Your task to perform on an android device: change keyboard looks Image 0: 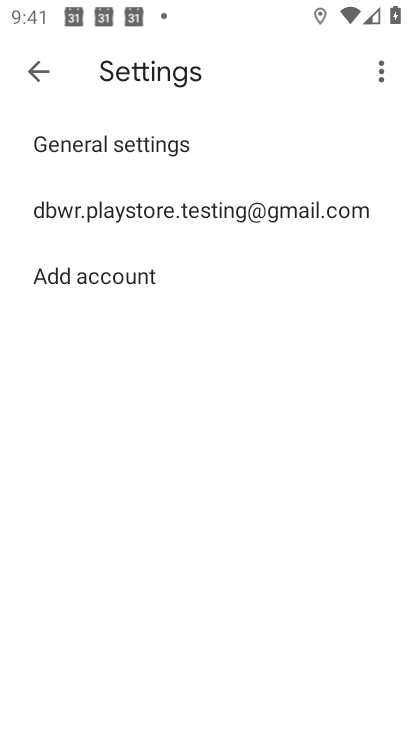
Step 0: press home button
Your task to perform on an android device: change keyboard looks Image 1: 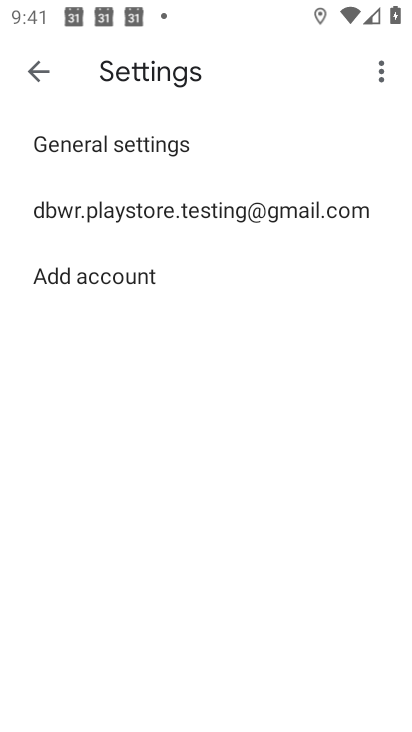
Step 1: press home button
Your task to perform on an android device: change keyboard looks Image 2: 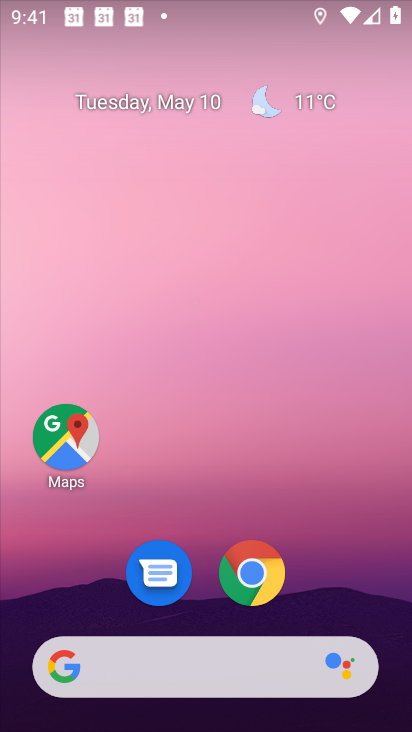
Step 2: drag from (308, 569) to (309, 119)
Your task to perform on an android device: change keyboard looks Image 3: 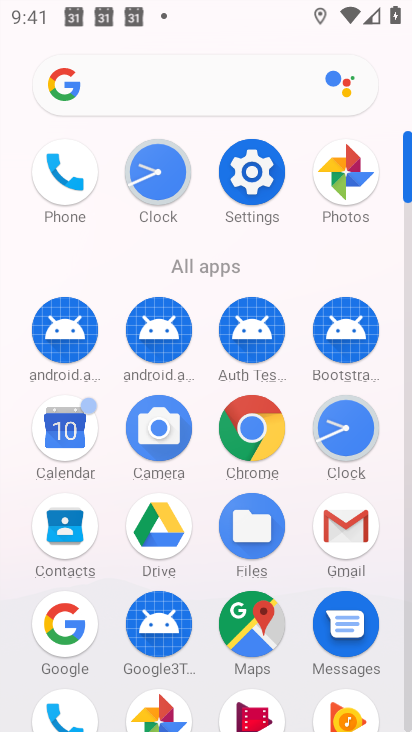
Step 3: click (270, 186)
Your task to perform on an android device: change keyboard looks Image 4: 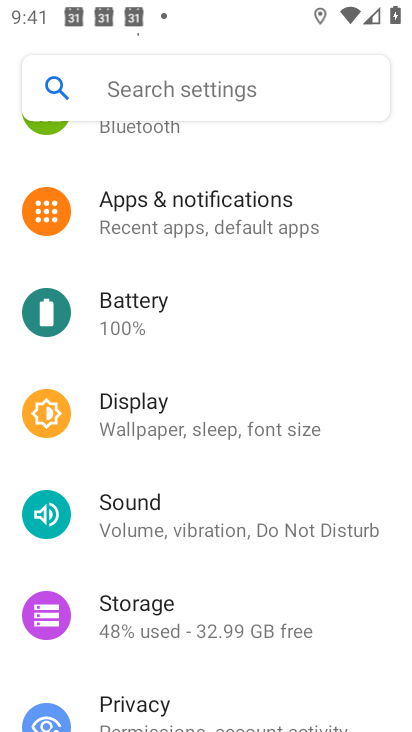
Step 4: drag from (271, 590) to (302, 119)
Your task to perform on an android device: change keyboard looks Image 5: 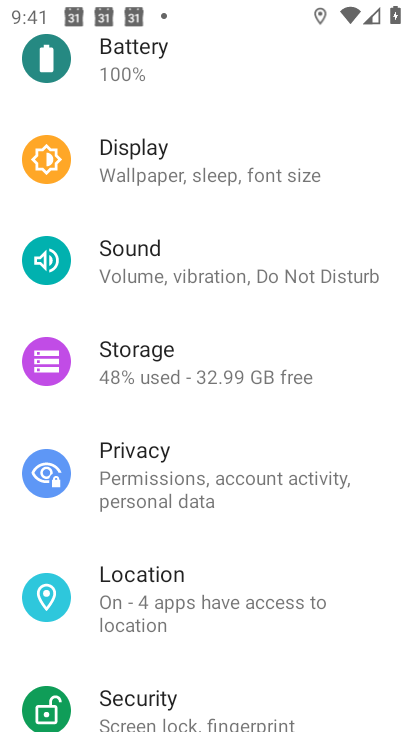
Step 5: drag from (280, 688) to (309, 165)
Your task to perform on an android device: change keyboard looks Image 6: 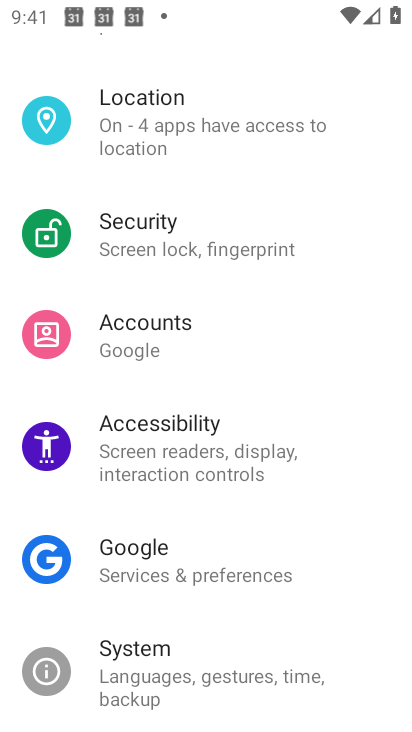
Step 6: click (227, 681)
Your task to perform on an android device: change keyboard looks Image 7: 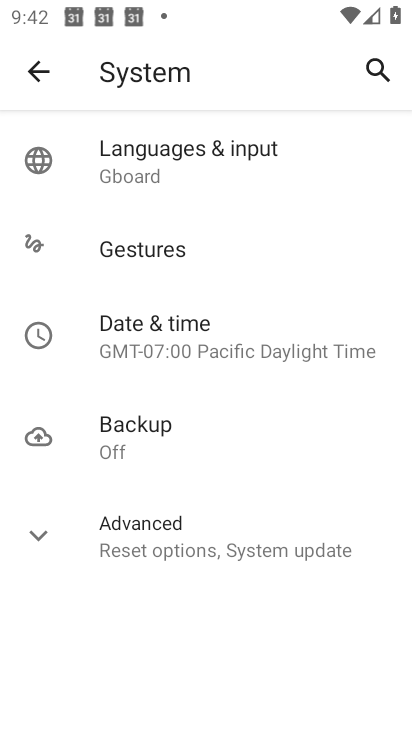
Step 7: click (195, 174)
Your task to perform on an android device: change keyboard looks Image 8: 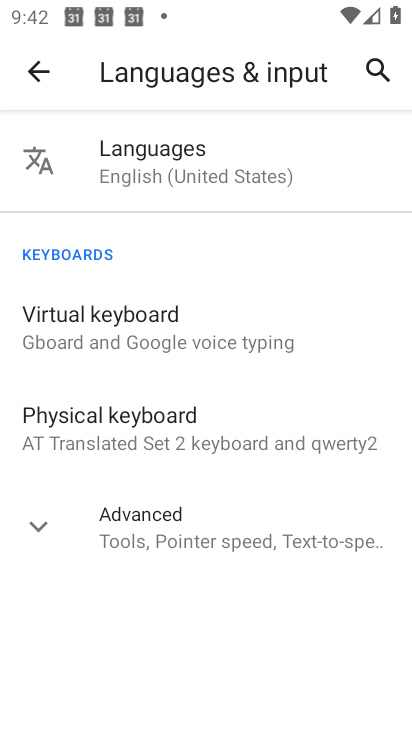
Step 8: click (221, 351)
Your task to perform on an android device: change keyboard looks Image 9: 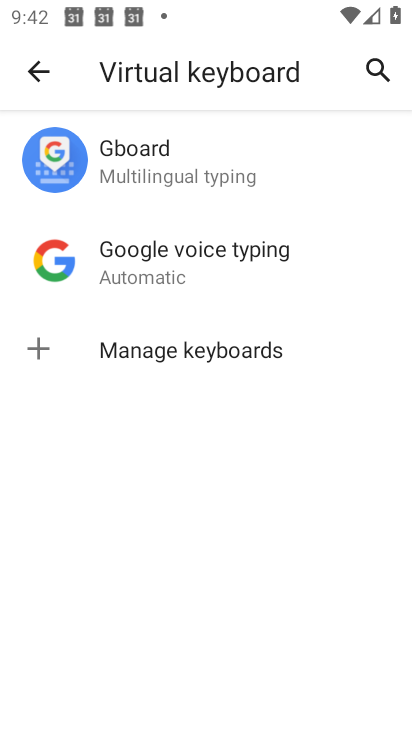
Step 9: click (190, 155)
Your task to perform on an android device: change keyboard looks Image 10: 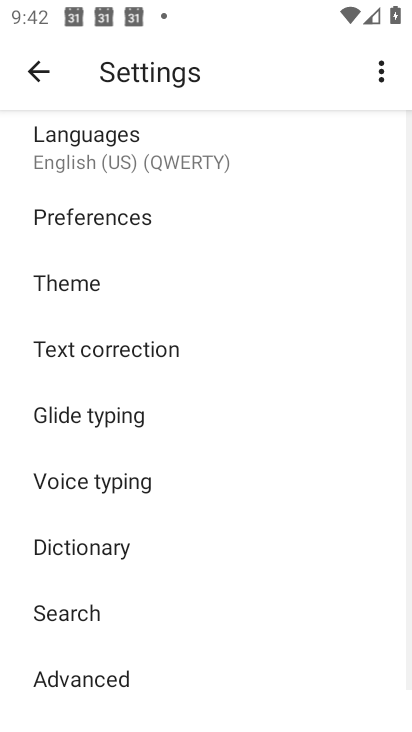
Step 10: click (154, 281)
Your task to perform on an android device: change keyboard looks Image 11: 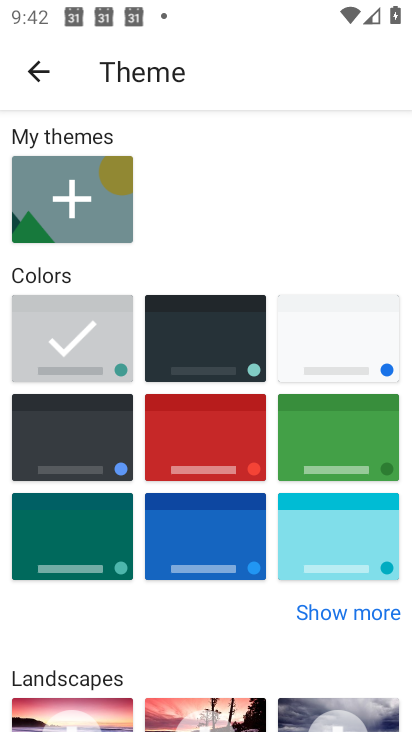
Step 11: click (227, 355)
Your task to perform on an android device: change keyboard looks Image 12: 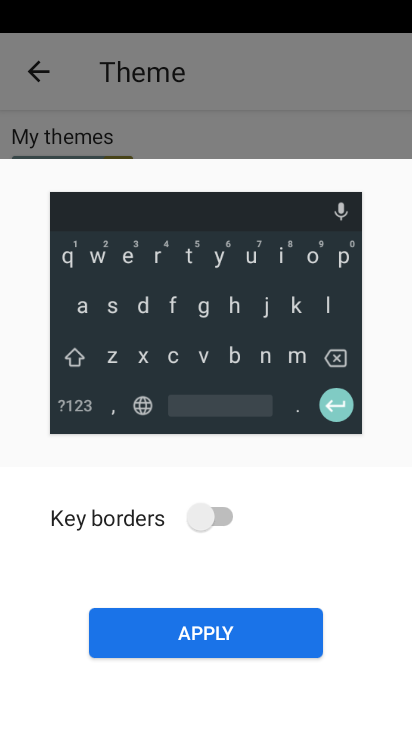
Step 12: task complete